Your task to perform on an android device: Show me productivity apps on the Play Store Image 0: 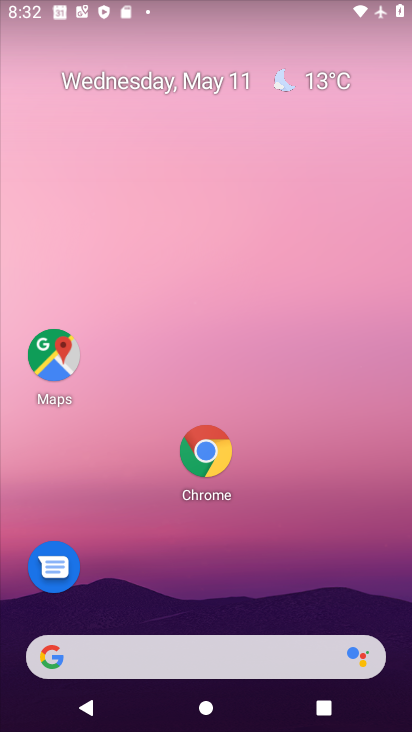
Step 0: drag from (205, 669) to (360, 135)
Your task to perform on an android device: Show me productivity apps on the Play Store Image 1: 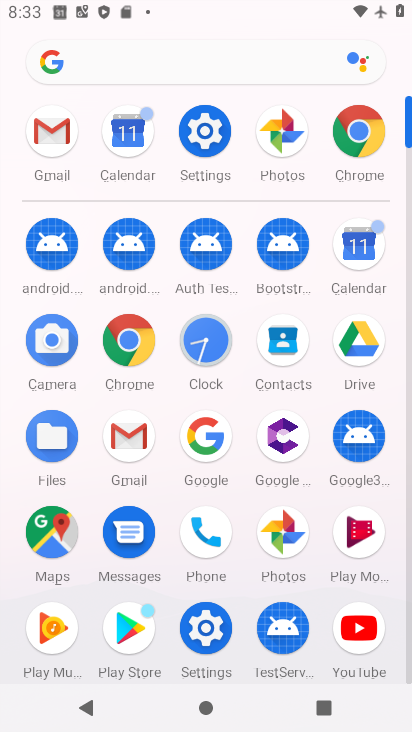
Step 1: click (125, 624)
Your task to perform on an android device: Show me productivity apps on the Play Store Image 2: 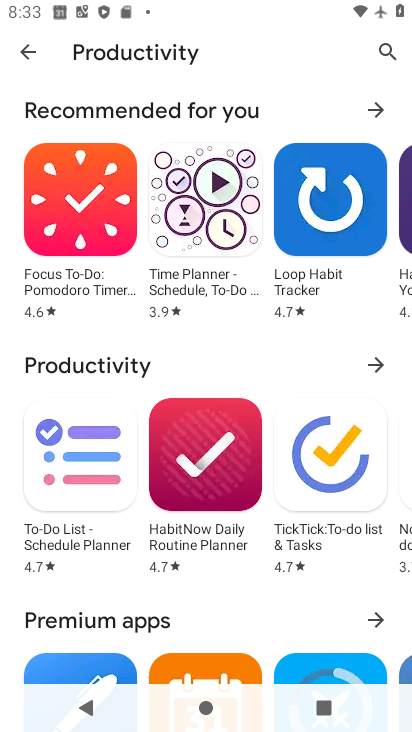
Step 2: task complete